Your task to perform on an android device: Go to wifi settings Image 0: 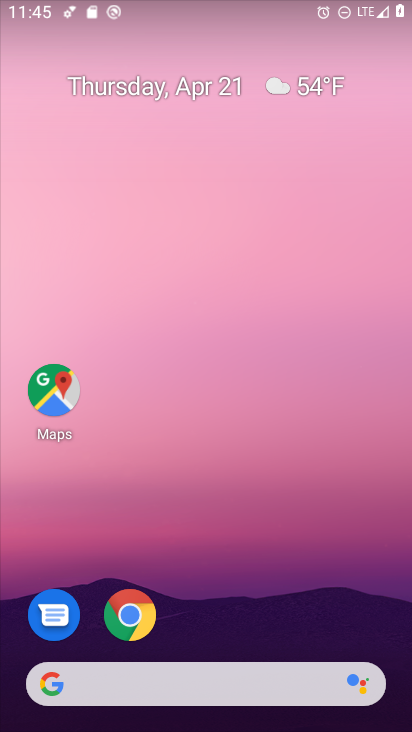
Step 0: drag from (229, 628) to (231, 85)
Your task to perform on an android device: Go to wifi settings Image 1: 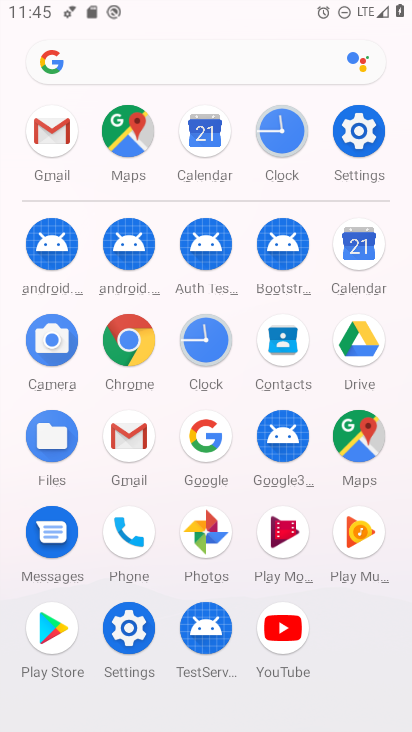
Step 1: click (358, 136)
Your task to perform on an android device: Go to wifi settings Image 2: 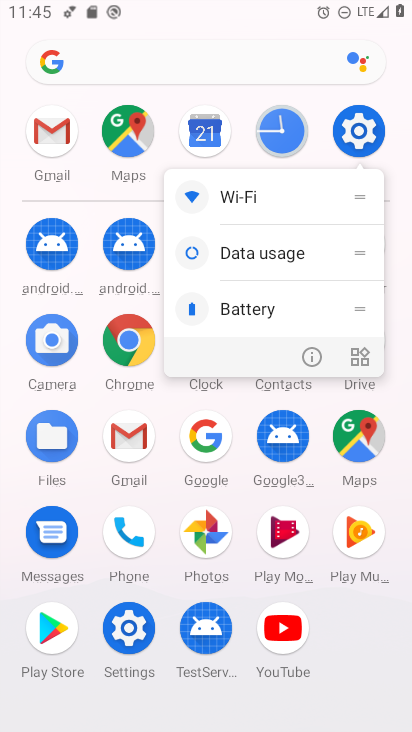
Step 2: click (358, 136)
Your task to perform on an android device: Go to wifi settings Image 3: 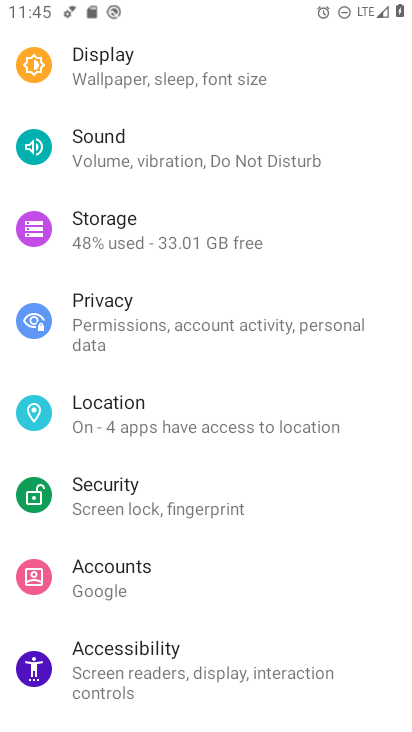
Step 3: drag from (132, 273) to (155, 336)
Your task to perform on an android device: Go to wifi settings Image 4: 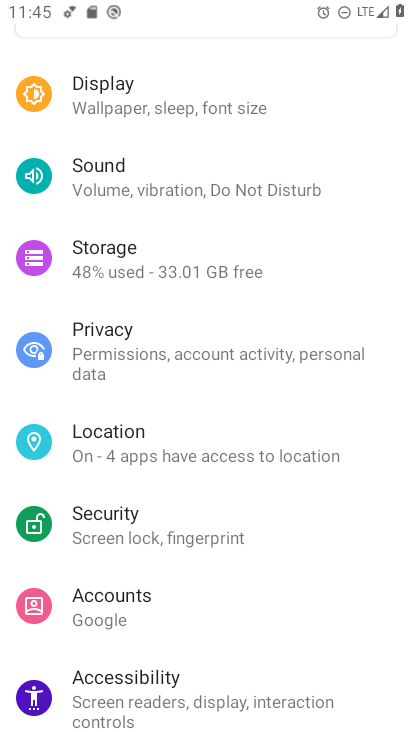
Step 4: drag from (137, 287) to (165, 369)
Your task to perform on an android device: Go to wifi settings Image 5: 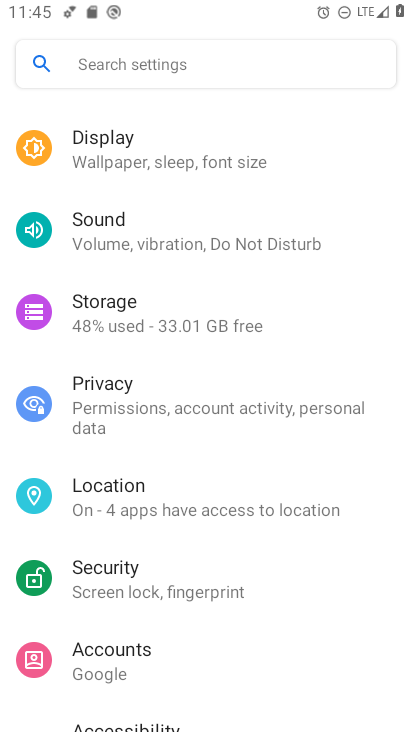
Step 5: drag from (156, 301) to (190, 396)
Your task to perform on an android device: Go to wifi settings Image 6: 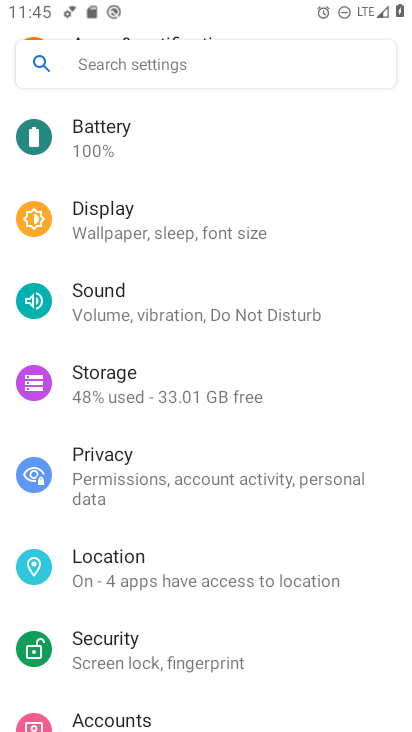
Step 6: drag from (169, 321) to (197, 428)
Your task to perform on an android device: Go to wifi settings Image 7: 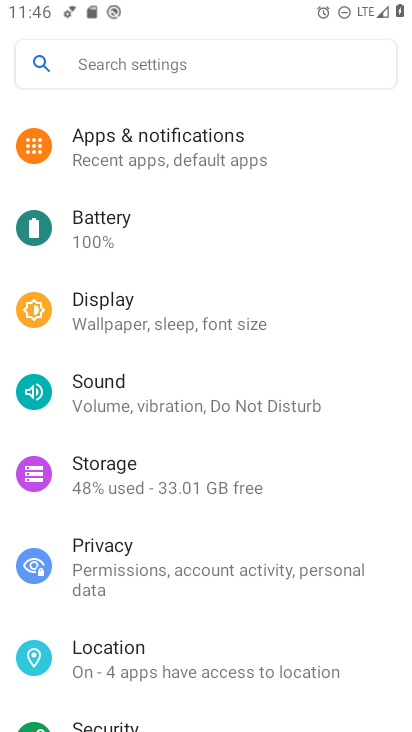
Step 7: drag from (180, 338) to (194, 439)
Your task to perform on an android device: Go to wifi settings Image 8: 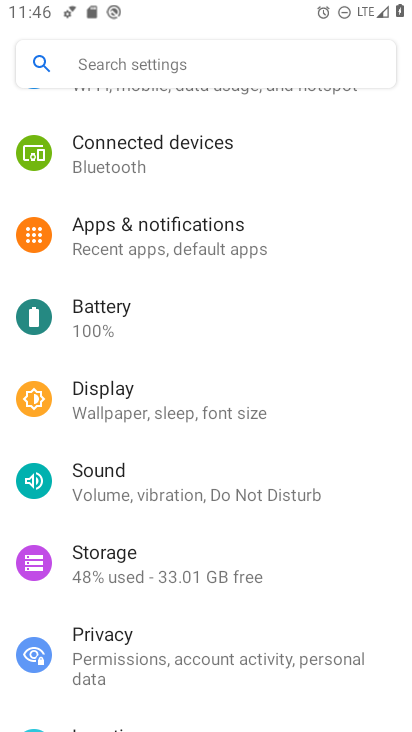
Step 8: drag from (151, 345) to (183, 429)
Your task to perform on an android device: Go to wifi settings Image 9: 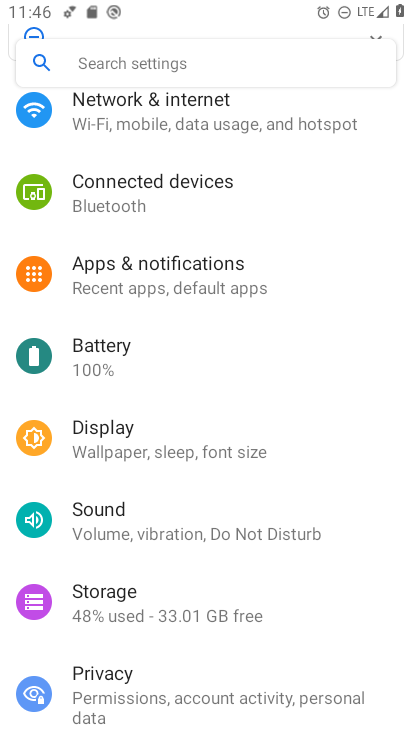
Step 9: click (158, 131)
Your task to perform on an android device: Go to wifi settings Image 10: 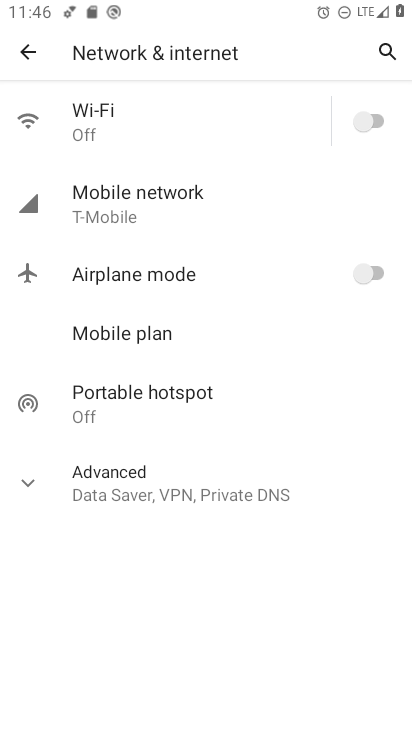
Step 10: click (65, 120)
Your task to perform on an android device: Go to wifi settings Image 11: 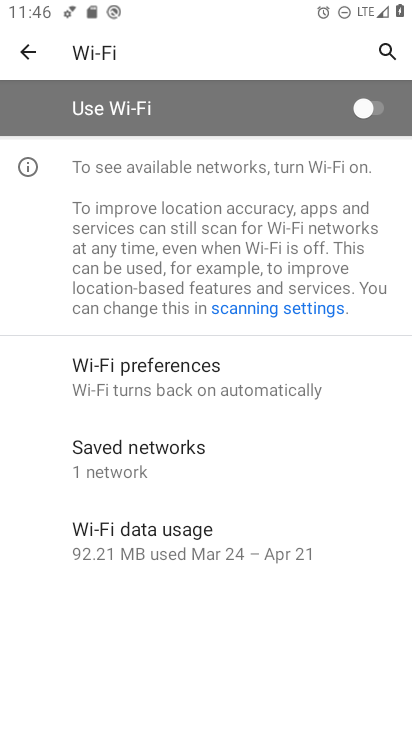
Step 11: task complete